Your task to perform on an android device: Go to network settings Image 0: 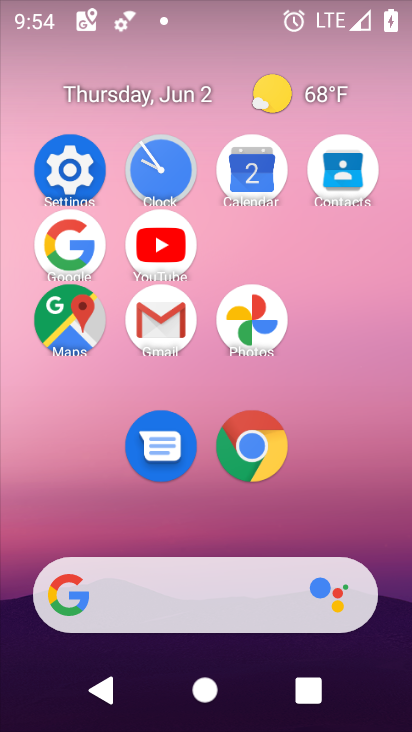
Step 0: click (85, 186)
Your task to perform on an android device: Go to network settings Image 1: 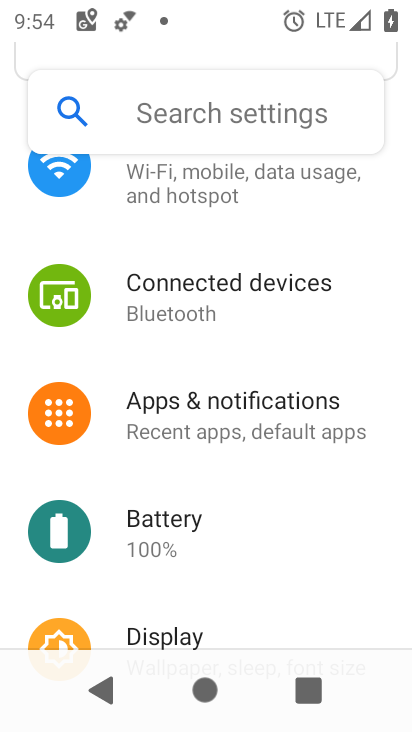
Step 1: click (259, 194)
Your task to perform on an android device: Go to network settings Image 2: 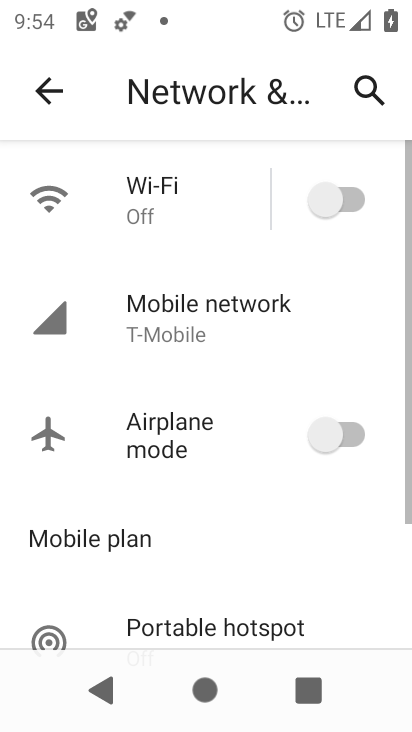
Step 2: task complete